Your task to perform on an android device: What's the weather? Image 0: 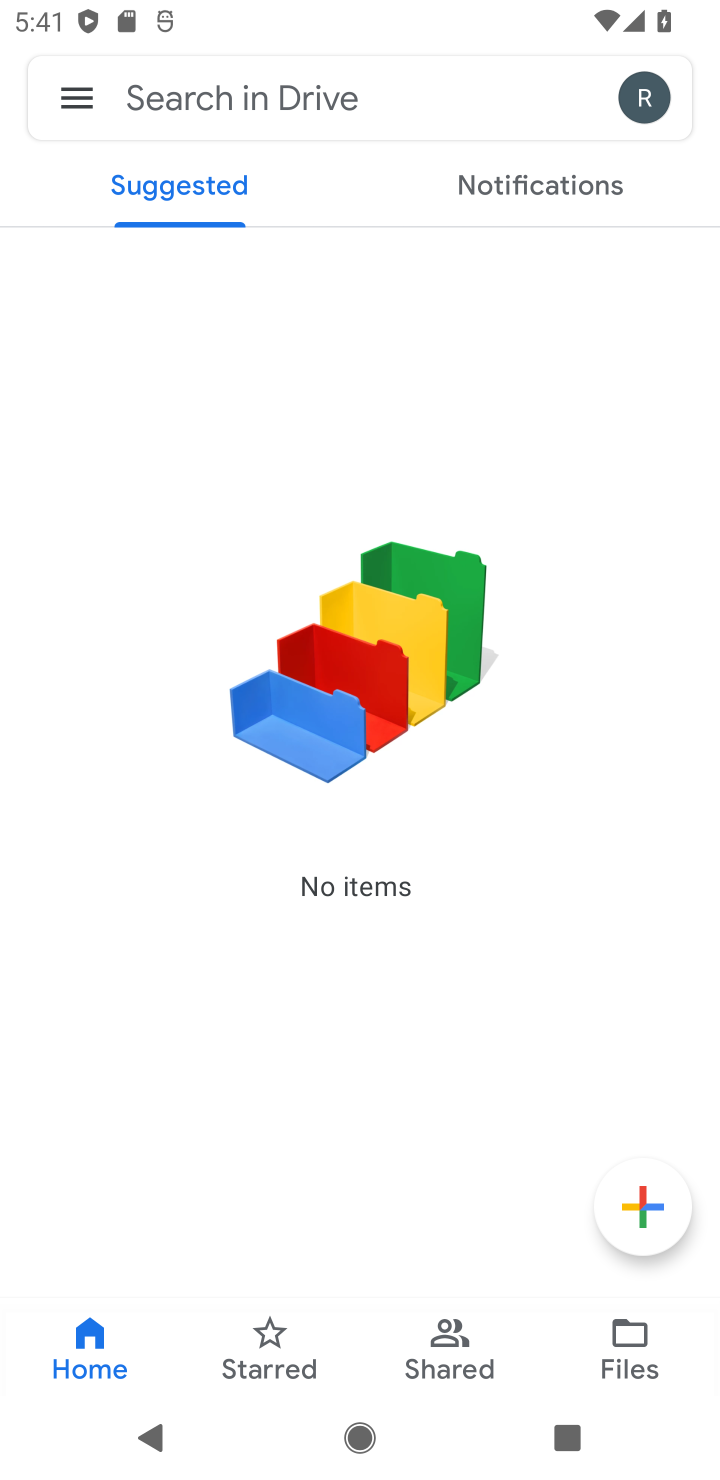
Step 0: press home button
Your task to perform on an android device: What's the weather? Image 1: 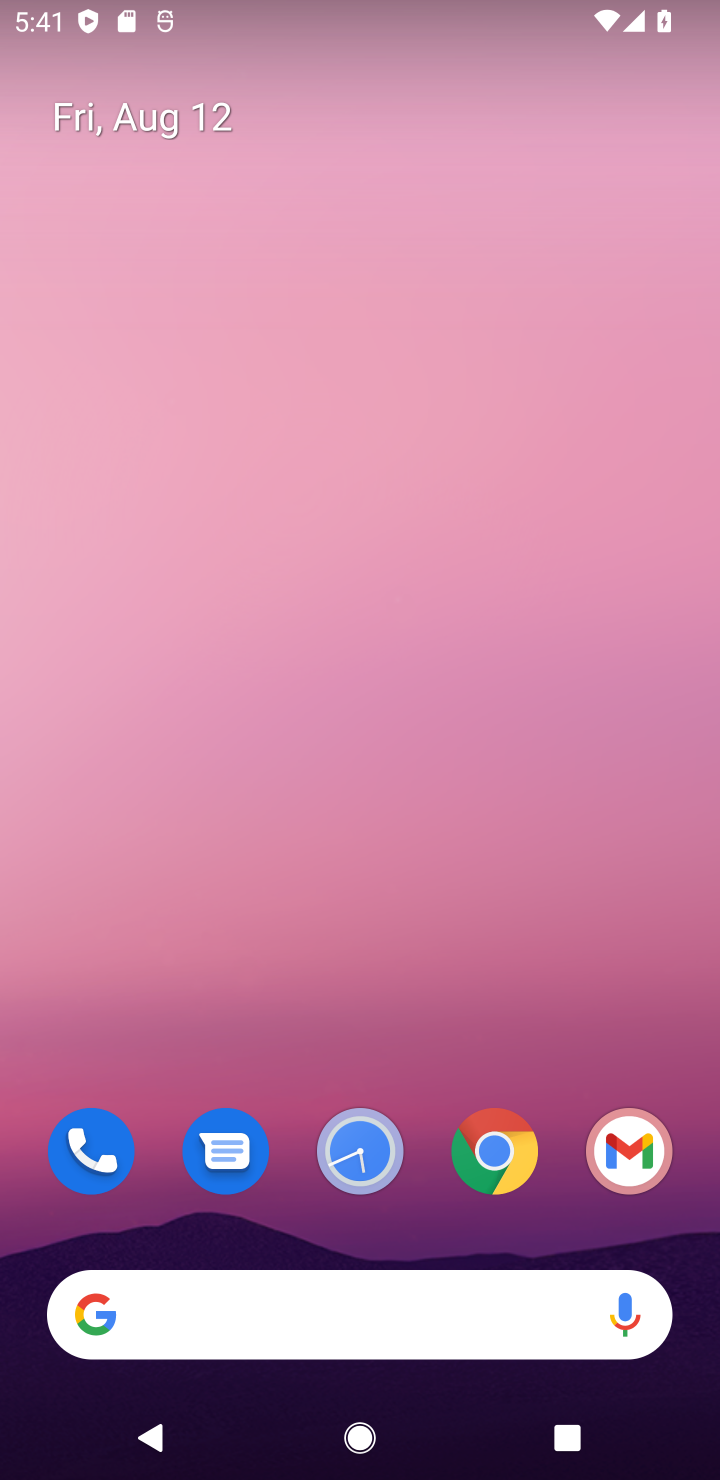
Step 1: drag from (337, 949) to (303, 25)
Your task to perform on an android device: What's the weather? Image 2: 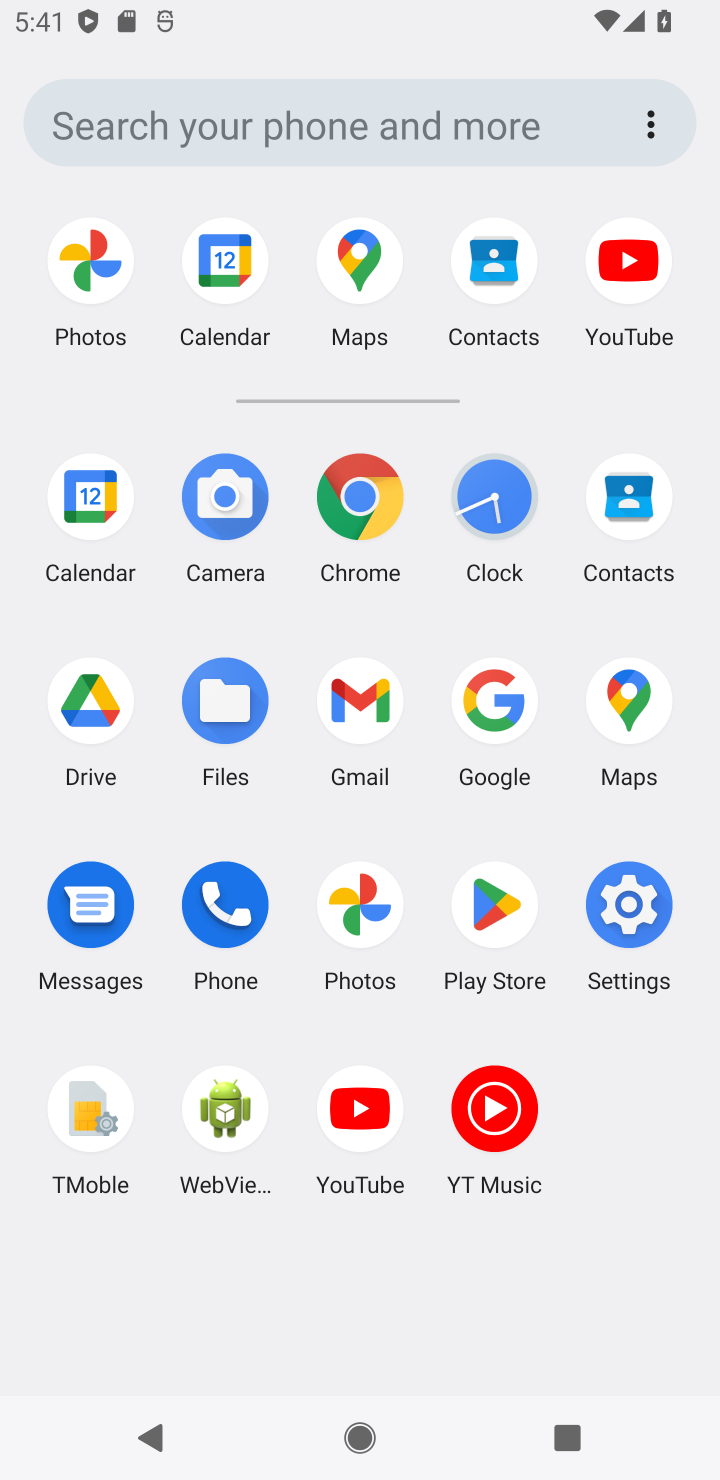
Step 2: click (370, 499)
Your task to perform on an android device: What's the weather? Image 3: 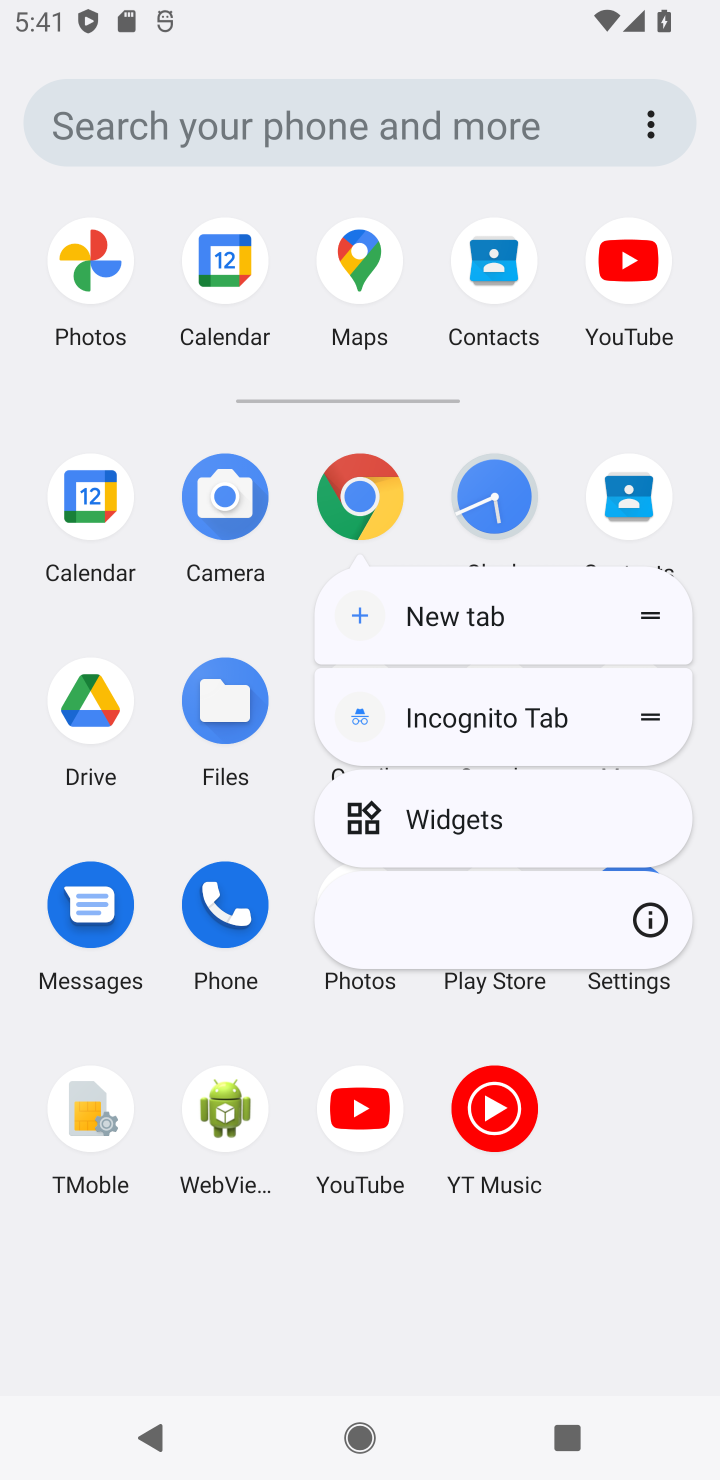
Step 3: click (361, 498)
Your task to perform on an android device: What's the weather? Image 4: 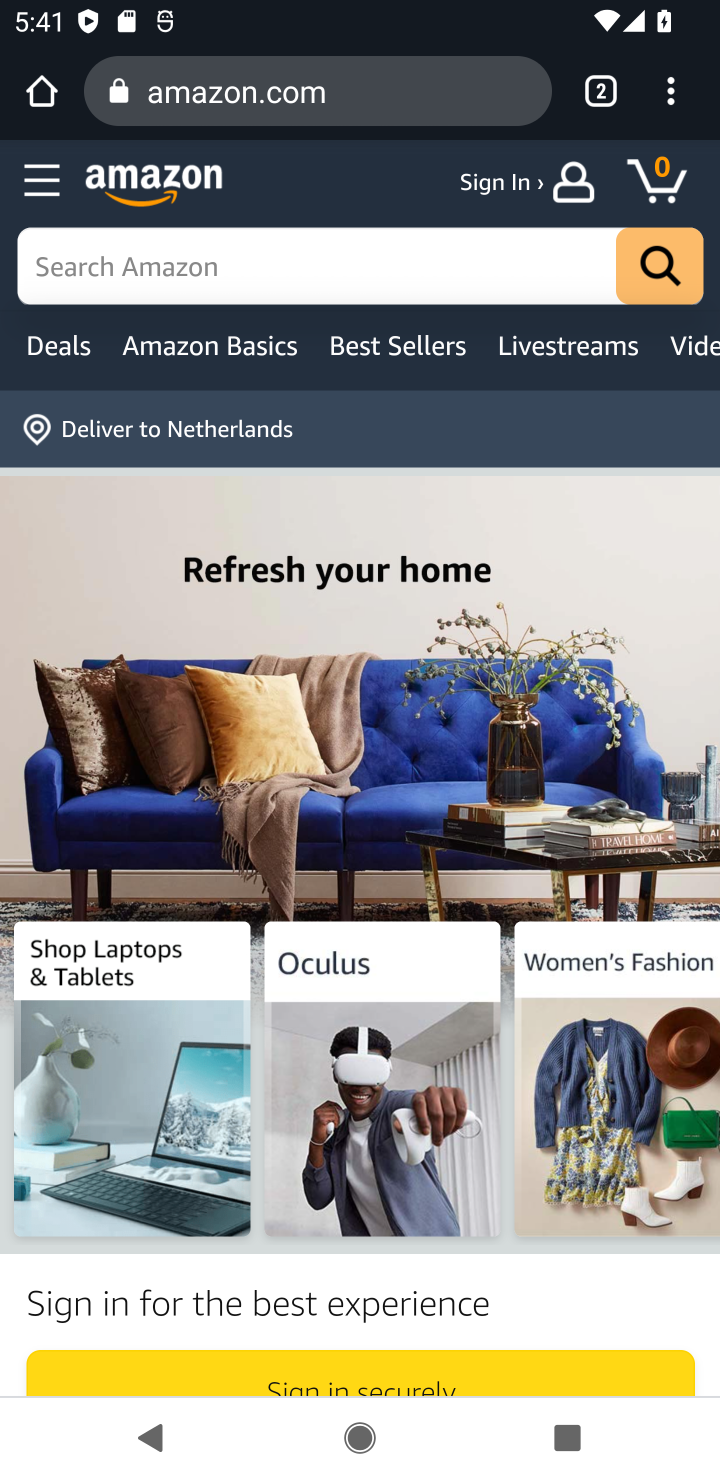
Step 4: click (343, 89)
Your task to perform on an android device: What's the weather? Image 5: 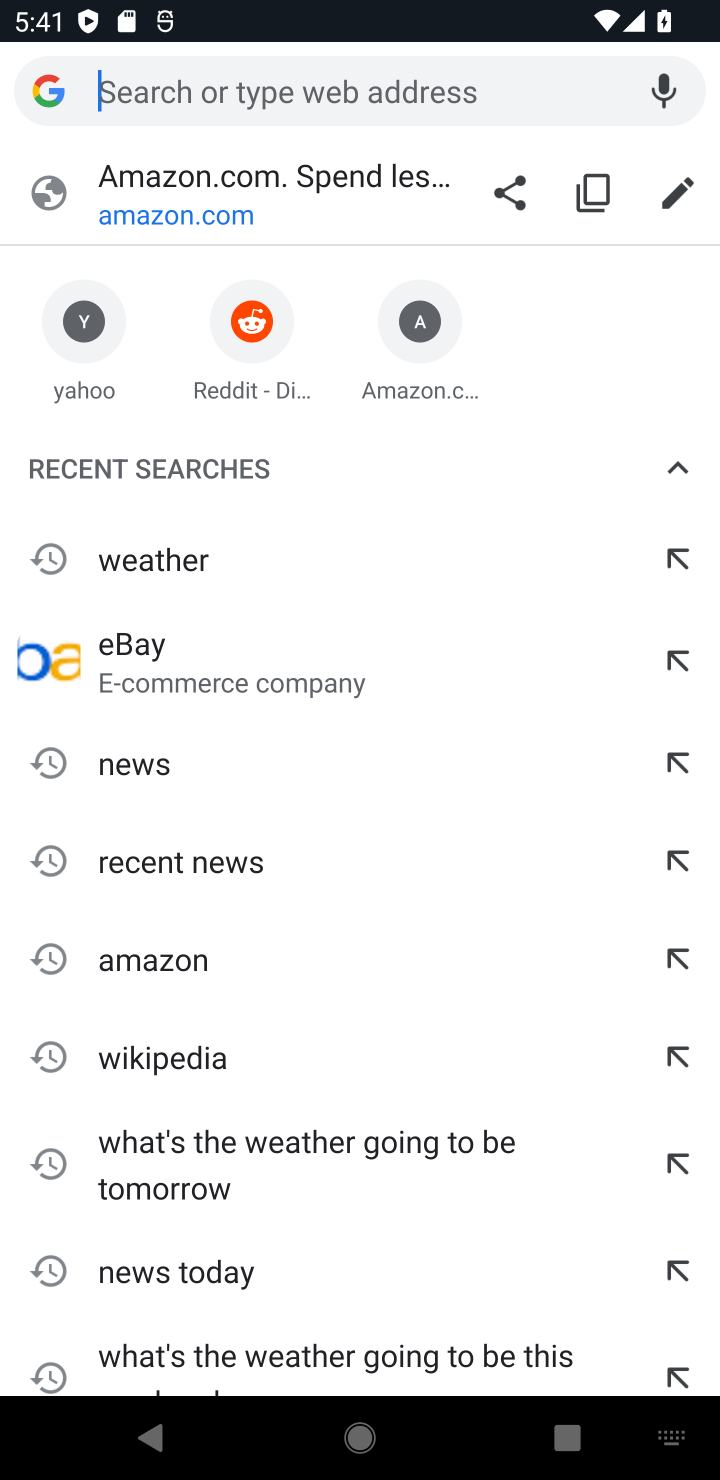
Step 5: click (207, 562)
Your task to perform on an android device: What's the weather? Image 6: 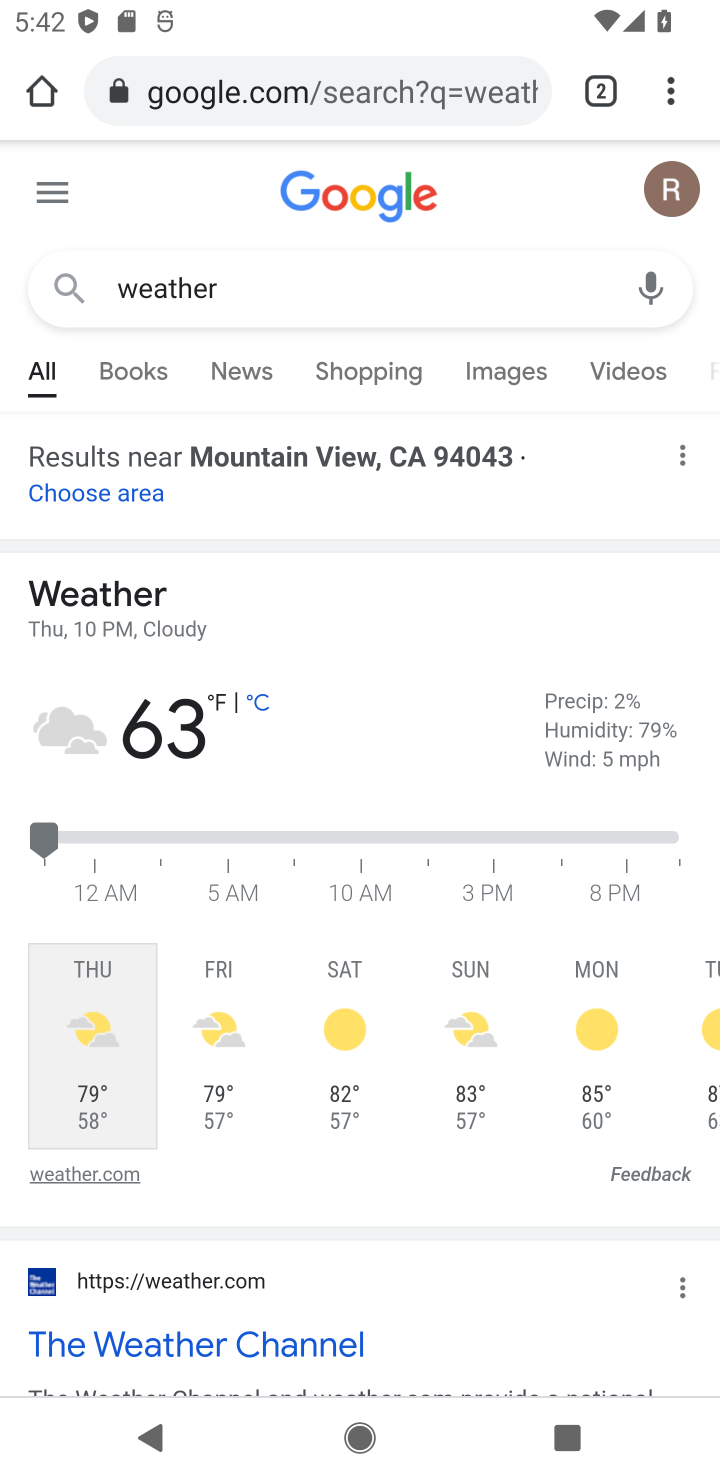
Step 6: task complete